Your task to perform on an android device: Go to calendar. Show me events next week Image 0: 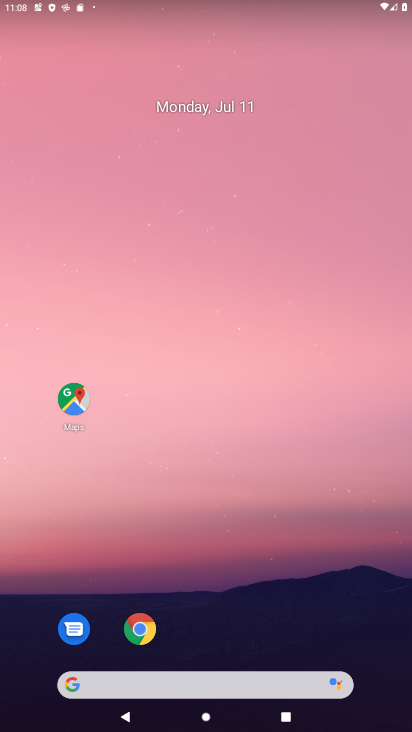
Step 0: drag from (287, 608) to (284, 250)
Your task to perform on an android device: Go to calendar. Show me events next week Image 1: 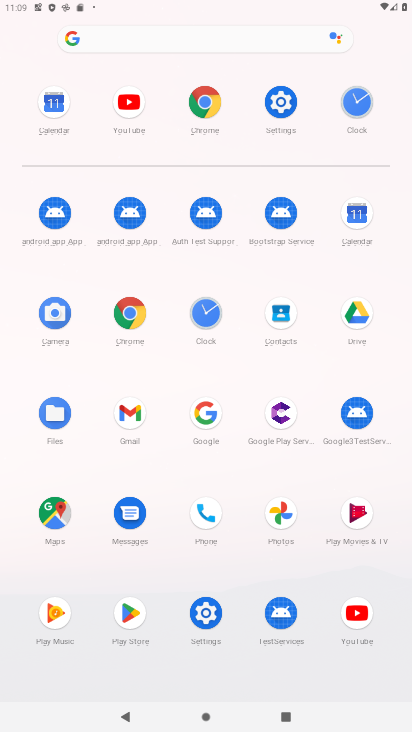
Step 1: click (58, 109)
Your task to perform on an android device: Go to calendar. Show me events next week Image 2: 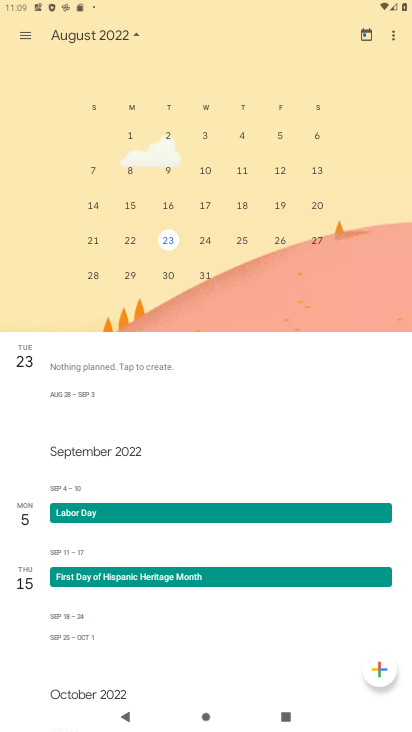
Step 2: drag from (74, 183) to (357, 168)
Your task to perform on an android device: Go to calendar. Show me events next week Image 3: 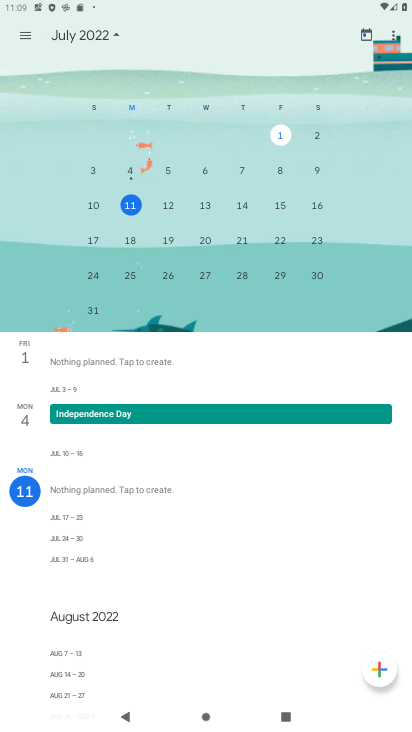
Step 3: click (154, 239)
Your task to perform on an android device: Go to calendar. Show me events next week Image 4: 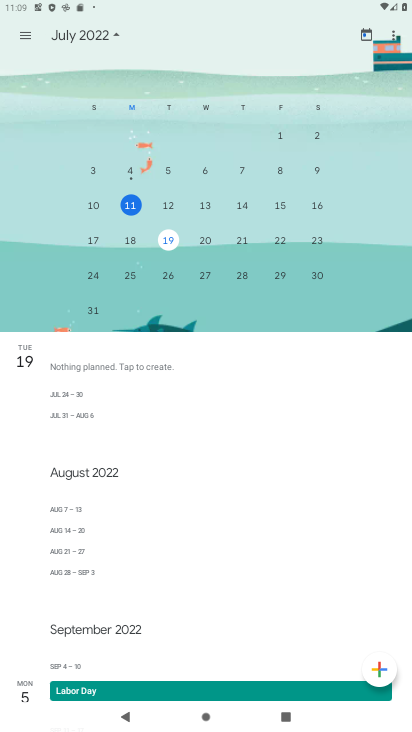
Step 4: task complete